Your task to perform on an android device: Do I have any events this weekend? Image 0: 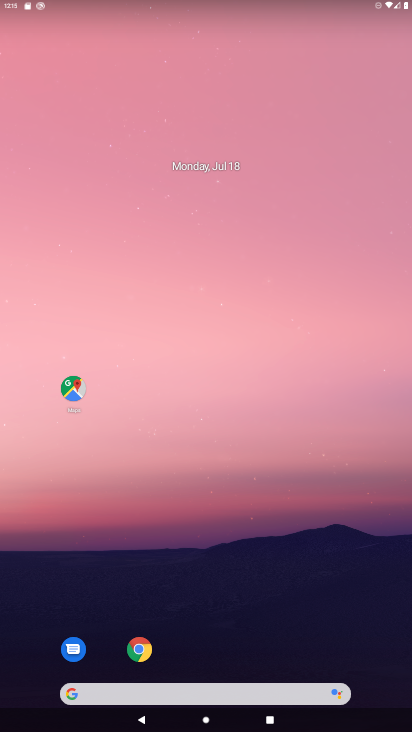
Step 0: click (190, 180)
Your task to perform on an android device: Do I have any events this weekend? Image 1: 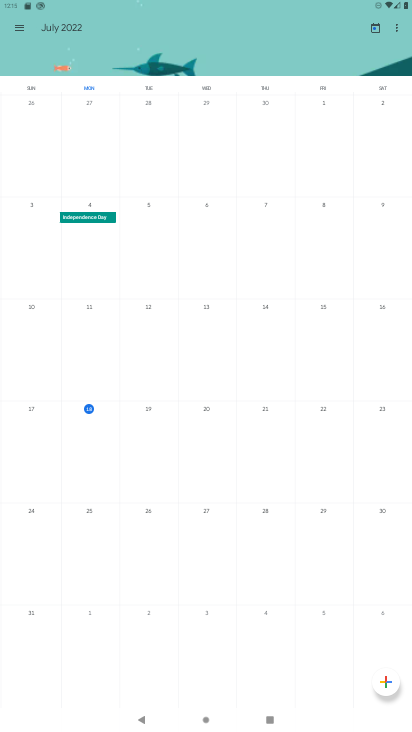
Step 1: click (386, 90)
Your task to perform on an android device: Do I have any events this weekend? Image 2: 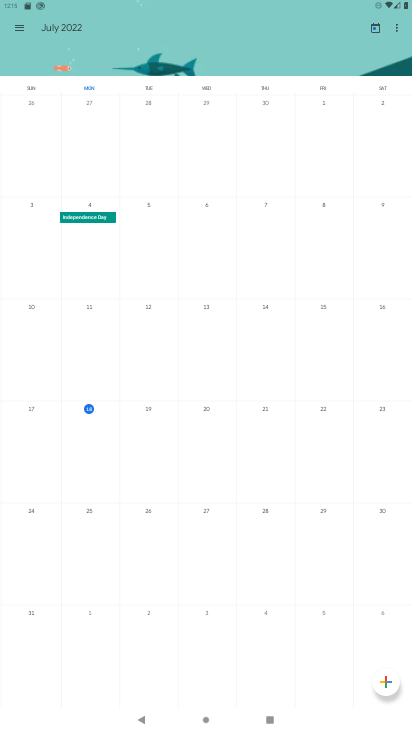
Step 2: task complete